Your task to perform on an android device: Open ESPN.com Image 0: 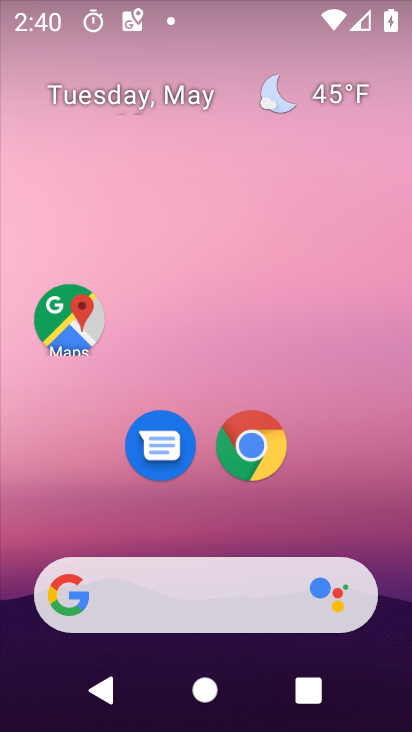
Step 0: click (258, 459)
Your task to perform on an android device: Open ESPN.com Image 1: 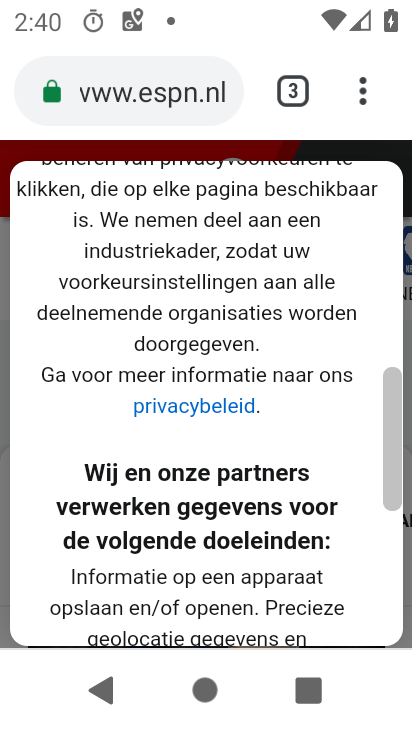
Step 1: click (293, 101)
Your task to perform on an android device: Open ESPN.com Image 2: 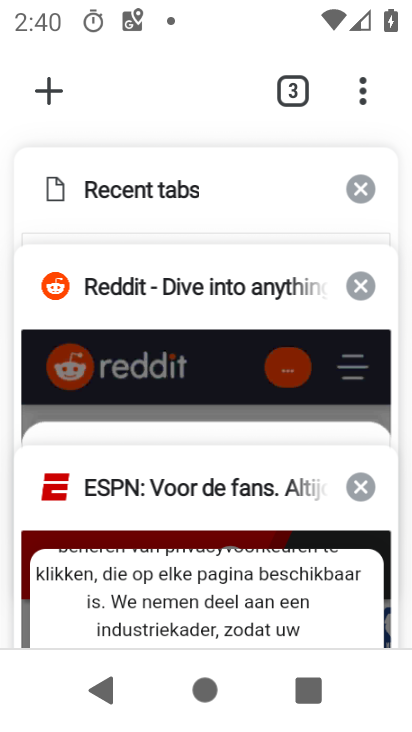
Step 2: click (41, 77)
Your task to perform on an android device: Open ESPN.com Image 3: 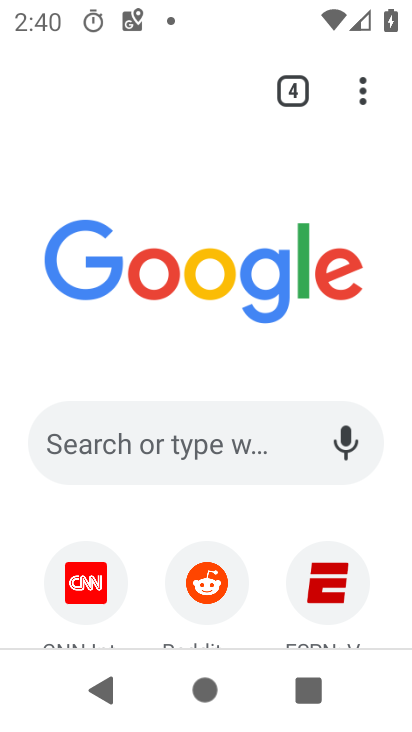
Step 3: click (283, 86)
Your task to perform on an android device: Open ESPN.com Image 4: 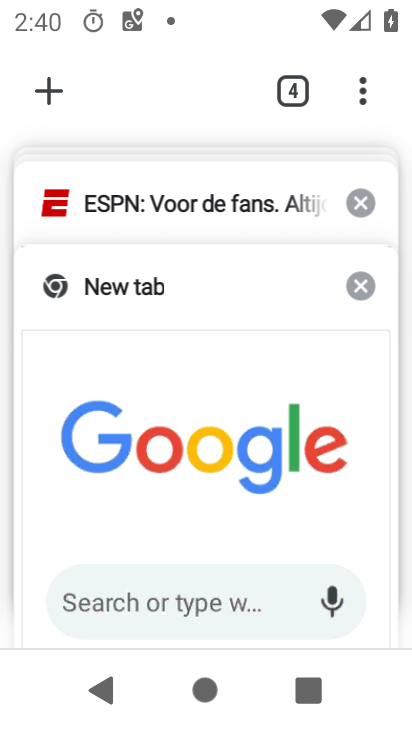
Step 4: click (155, 197)
Your task to perform on an android device: Open ESPN.com Image 5: 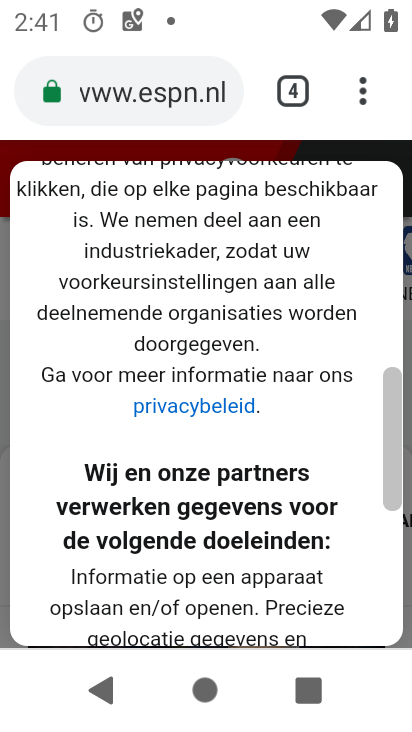
Step 5: task complete